Your task to perform on an android device: Do I have any events today? Image 0: 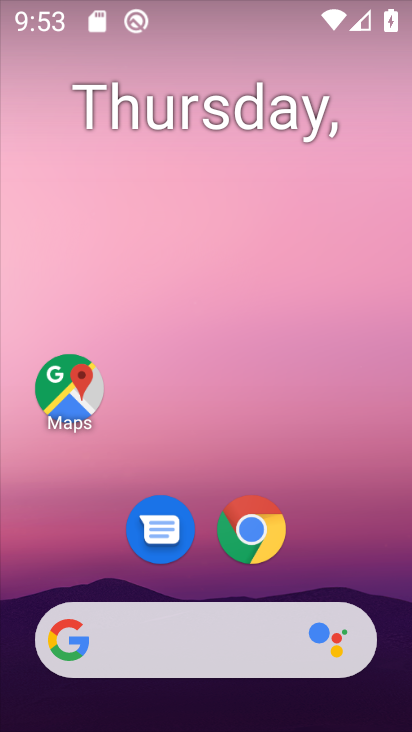
Step 0: drag from (223, 418) to (232, 5)
Your task to perform on an android device: Do I have any events today? Image 1: 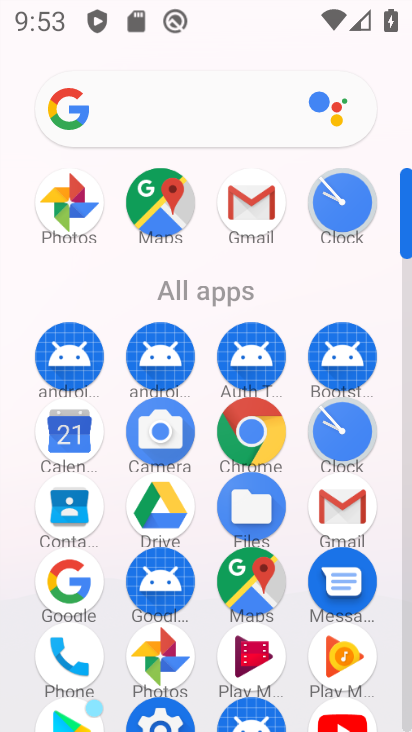
Step 1: click (71, 437)
Your task to perform on an android device: Do I have any events today? Image 2: 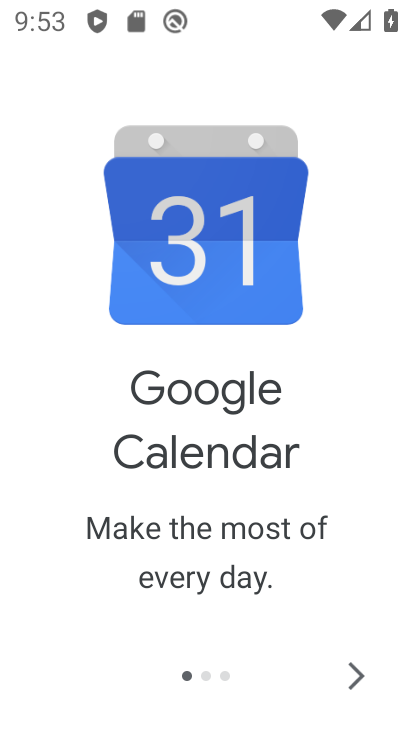
Step 2: click (362, 676)
Your task to perform on an android device: Do I have any events today? Image 3: 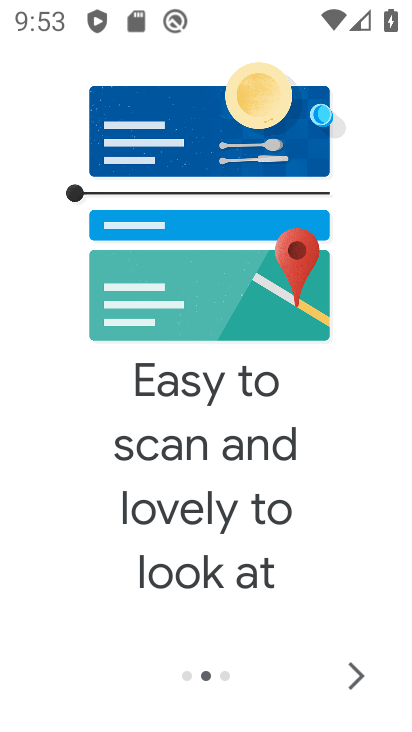
Step 3: click (362, 676)
Your task to perform on an android device: Do I have any events today? Image 4: 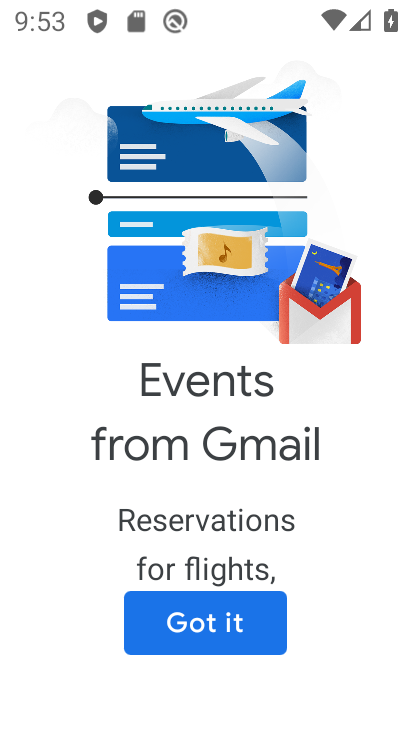
Step 4: click (237, 624)
Your task to perform on an android device: Do I have any events today? Image 5: 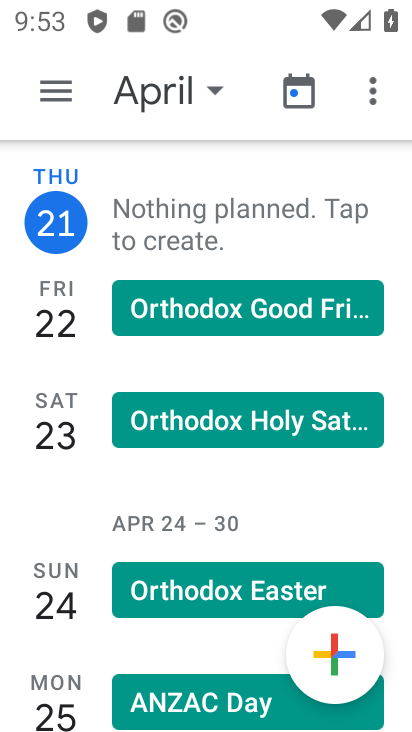
Step 5: click (60, 98)
Your task to perform on an android device: Do I have any events today? Image 6: 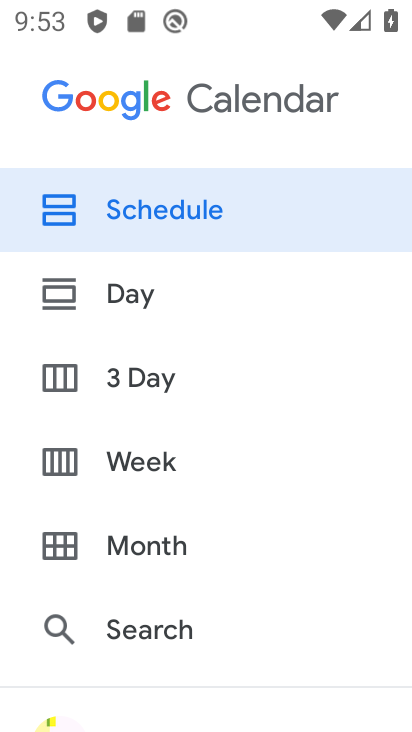
Step 6: click (149, 216)
Your task to perform on an android device: Do I have any events today? Image 7: 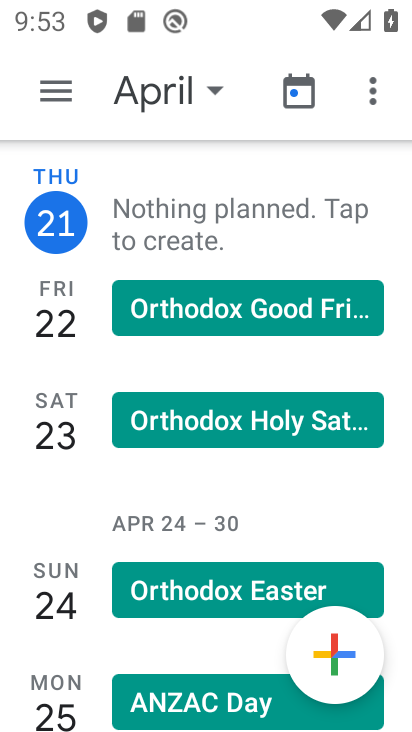
Step 7: click (205, 85)
Your task to perform on an android device: Do I have any events today? Image 8: 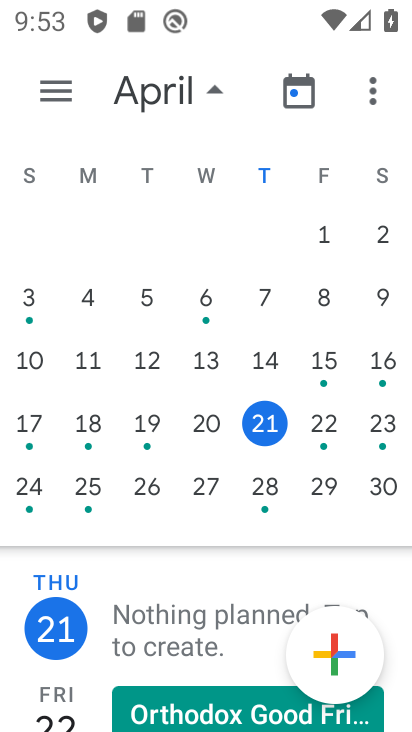
Step 8: click (271, 422)
Your task to perform on an android device: Do I have any events today? Image 9: 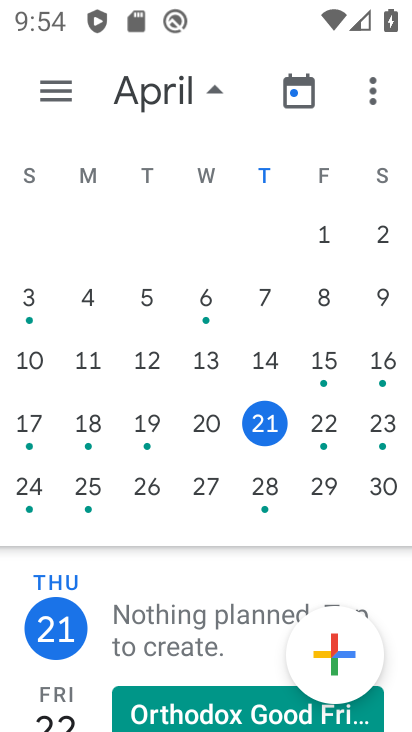
Step 9: task complete